Your task to perform on an android device: toggle javascript in the chrome app Image 0: 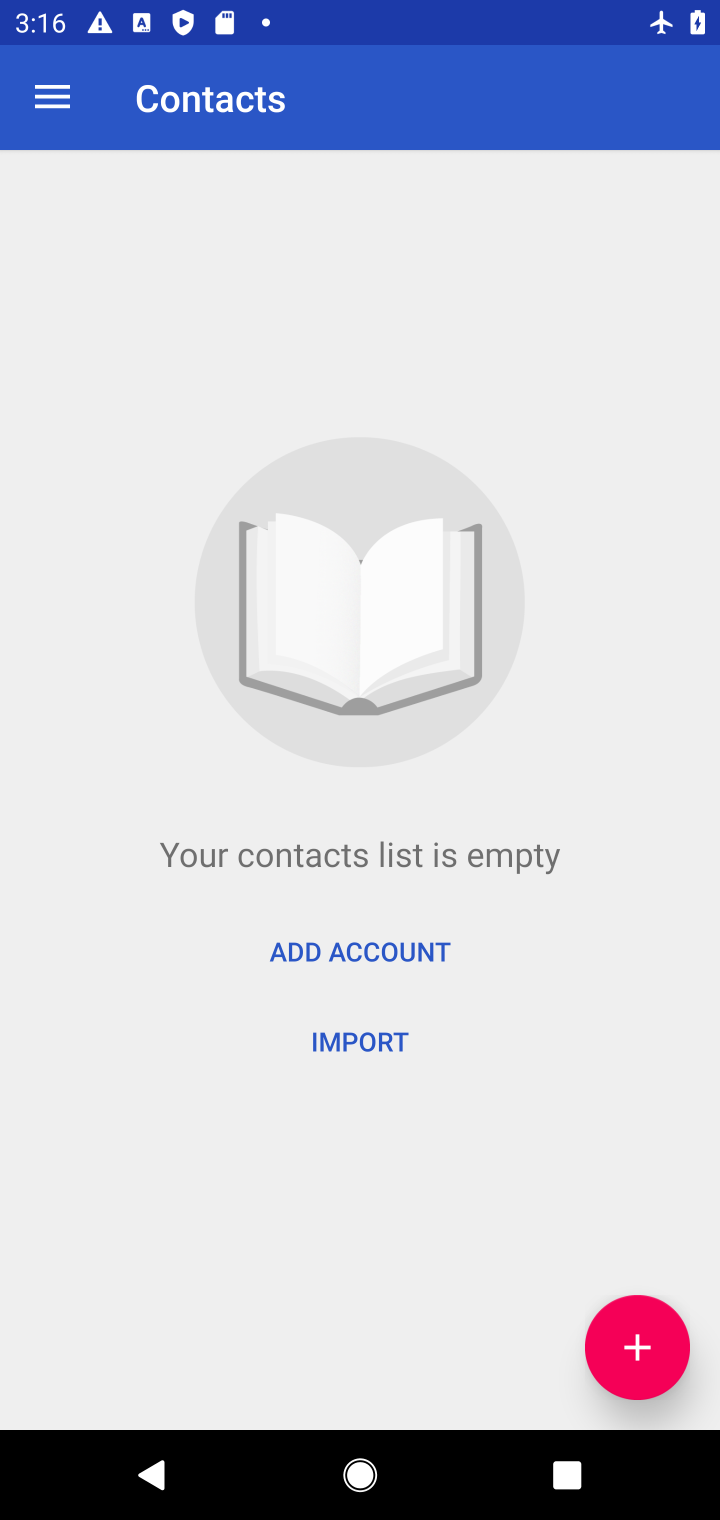
Step 0: press home button
Your task to perform on an android device: toggle javascript in the chrome app Image 1: 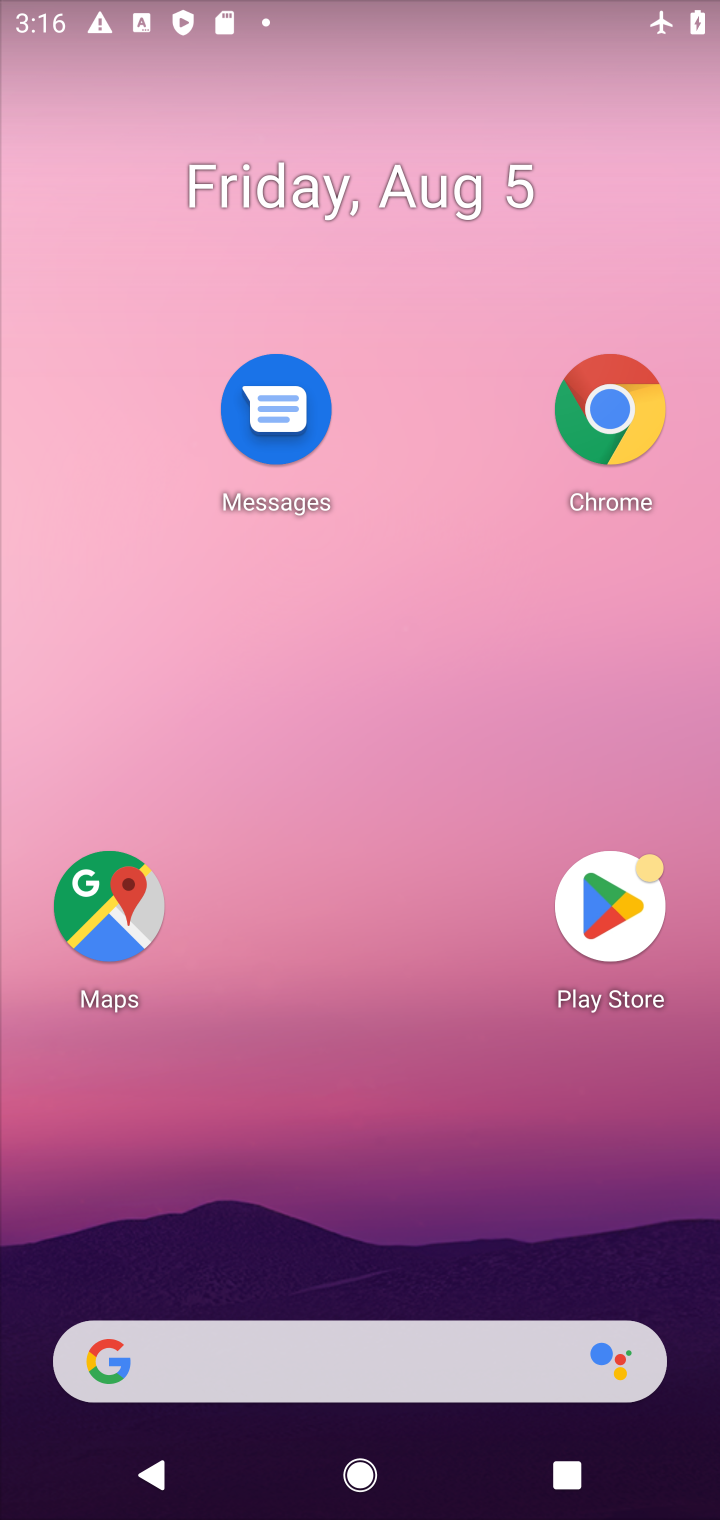
Step 1: click (590, 434)
Your task to perform on an android device: toggle javascript in the chrome app Image 2: 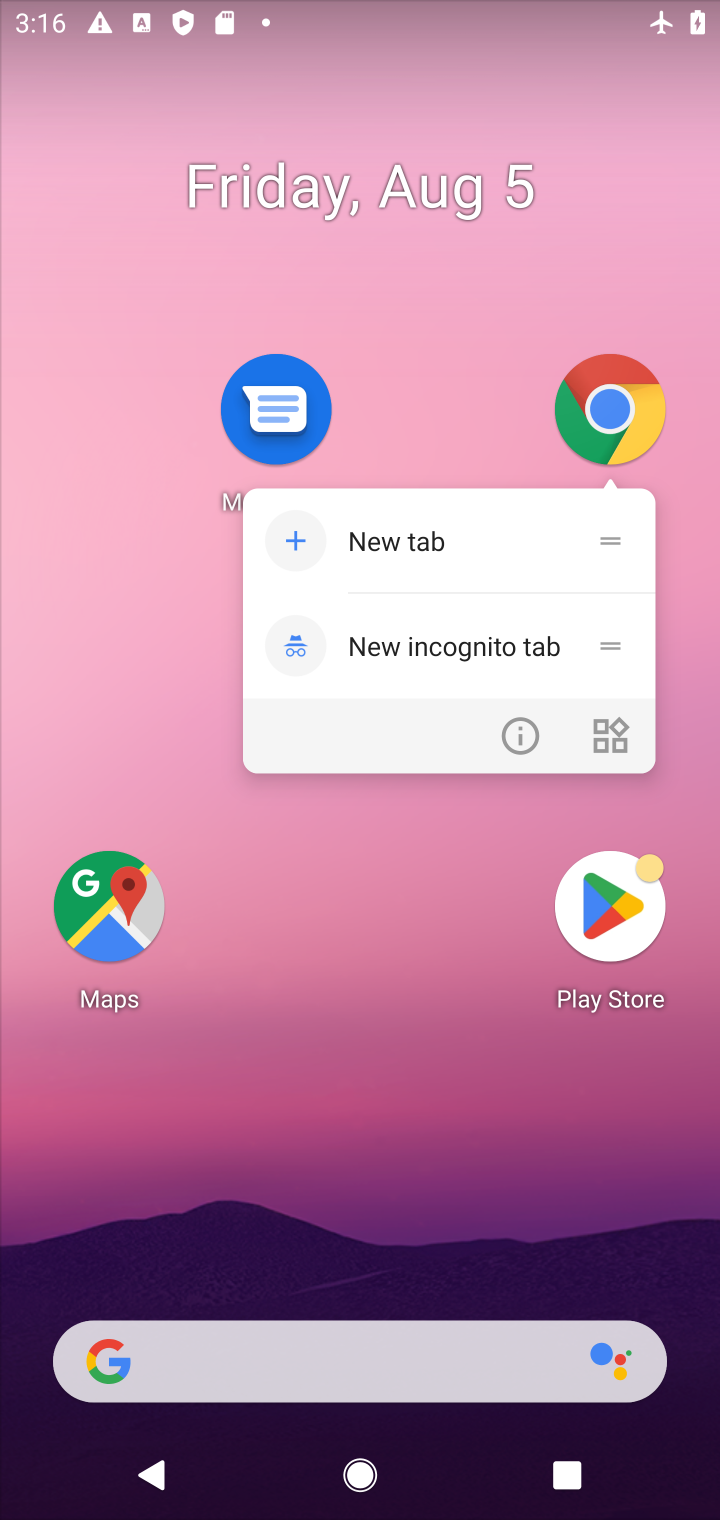
Step 2: click (590, 434)
Your task to perform on an android device: toggle javascript in the chrome app Image 3: 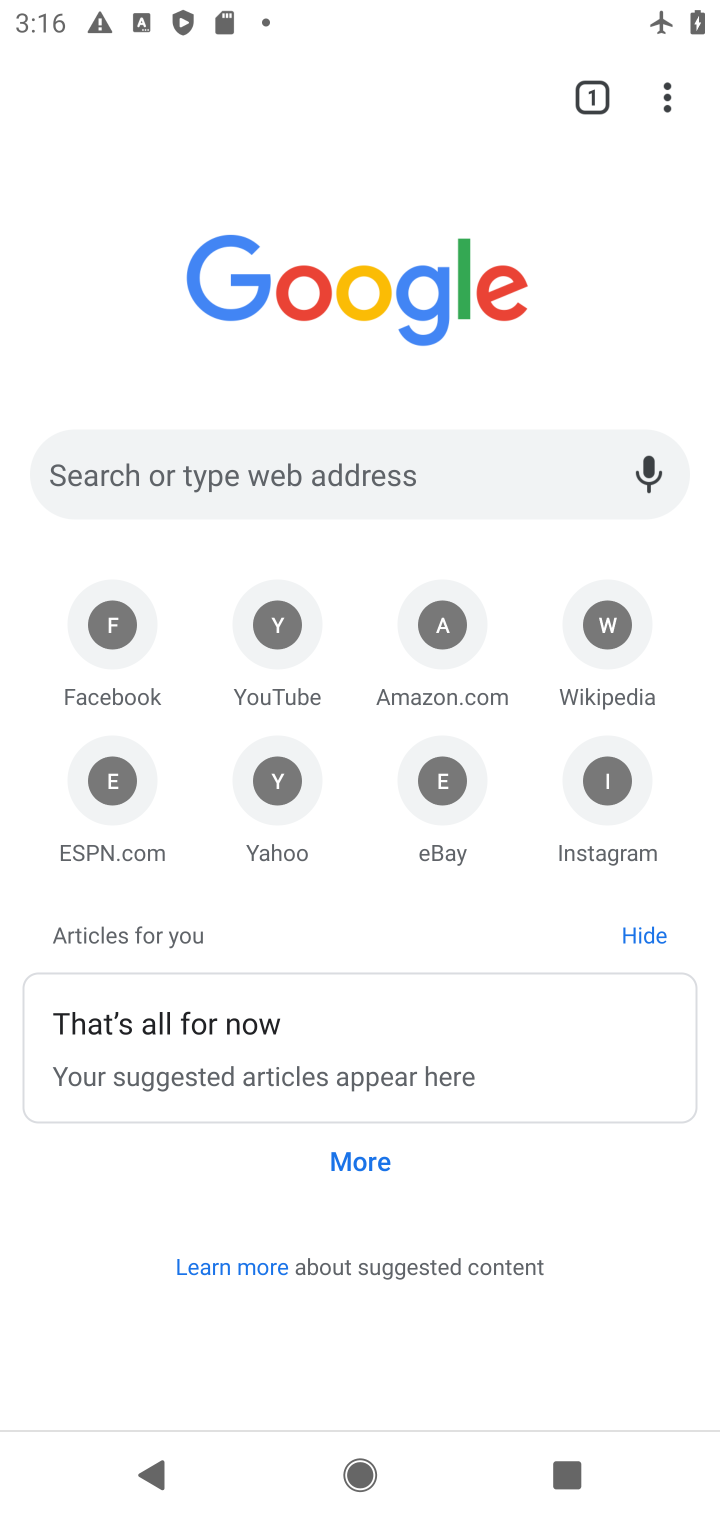
Step 3: drag from (656, 106) to (332, 821)
Your task to perform on an android device: toggle javascript in the chrome app Image 4: 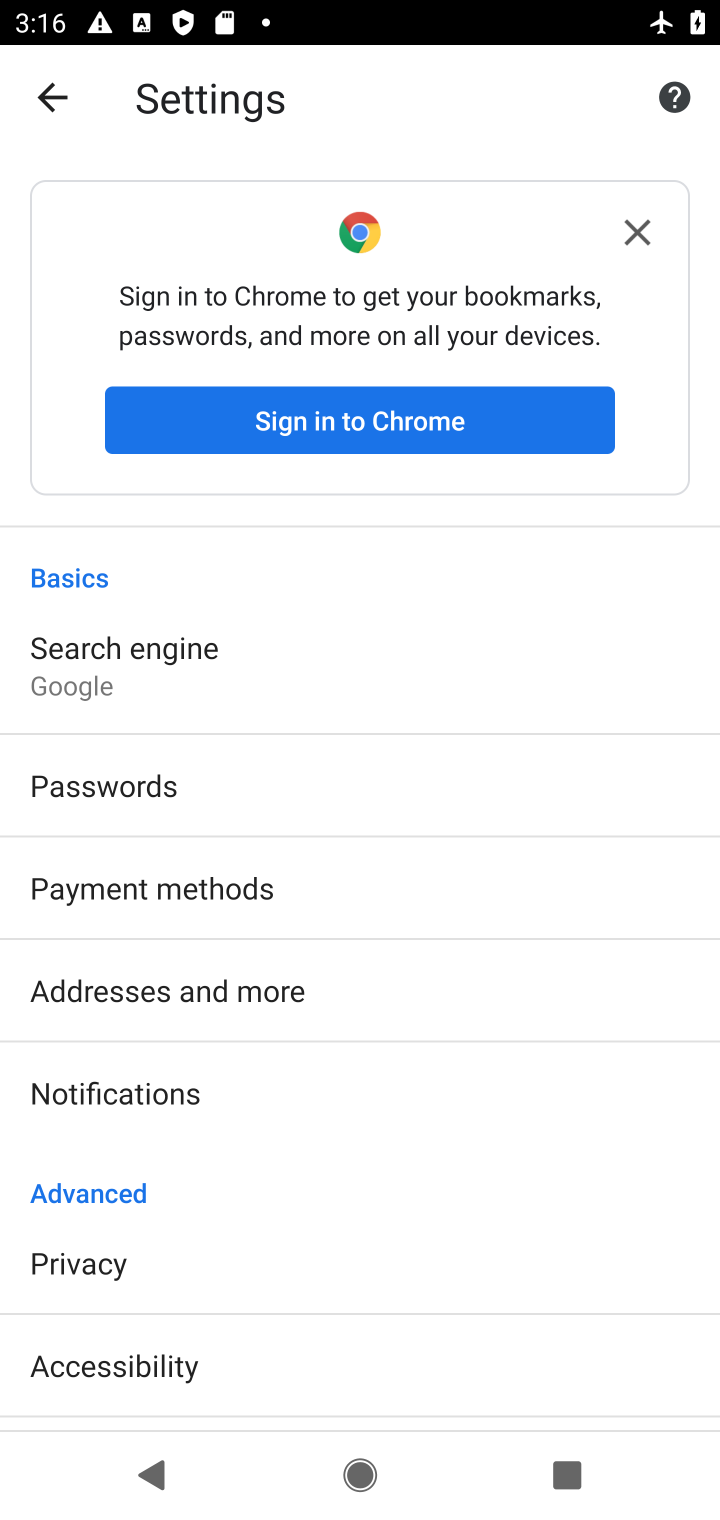
Step 4: drag from (253, 1253) to (343, 650)
Your task to perform on an android device: toggle javascript in the chrome app Image 5: 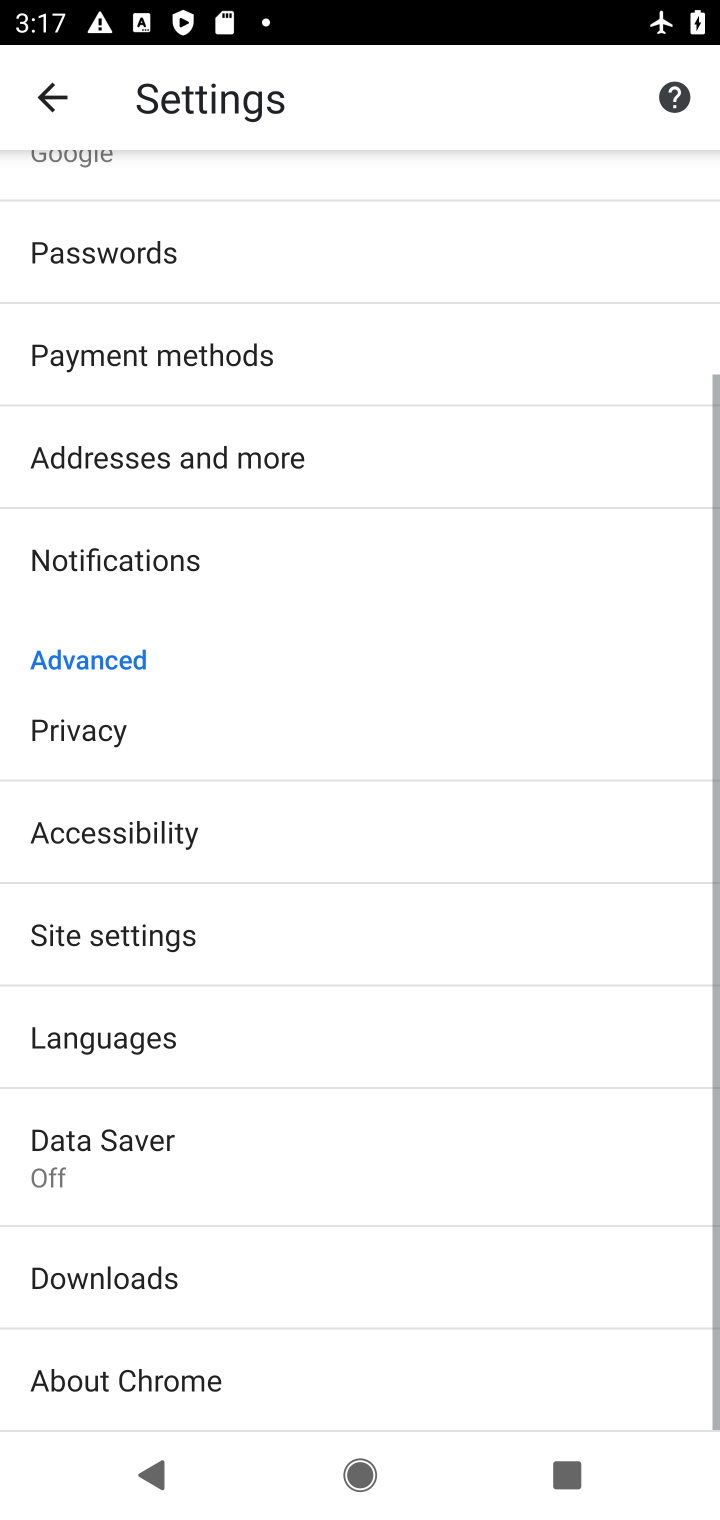
Step 5: click (250, 908)
Your task to perform on an android device: toggle javascript in the chrome app Image 6: 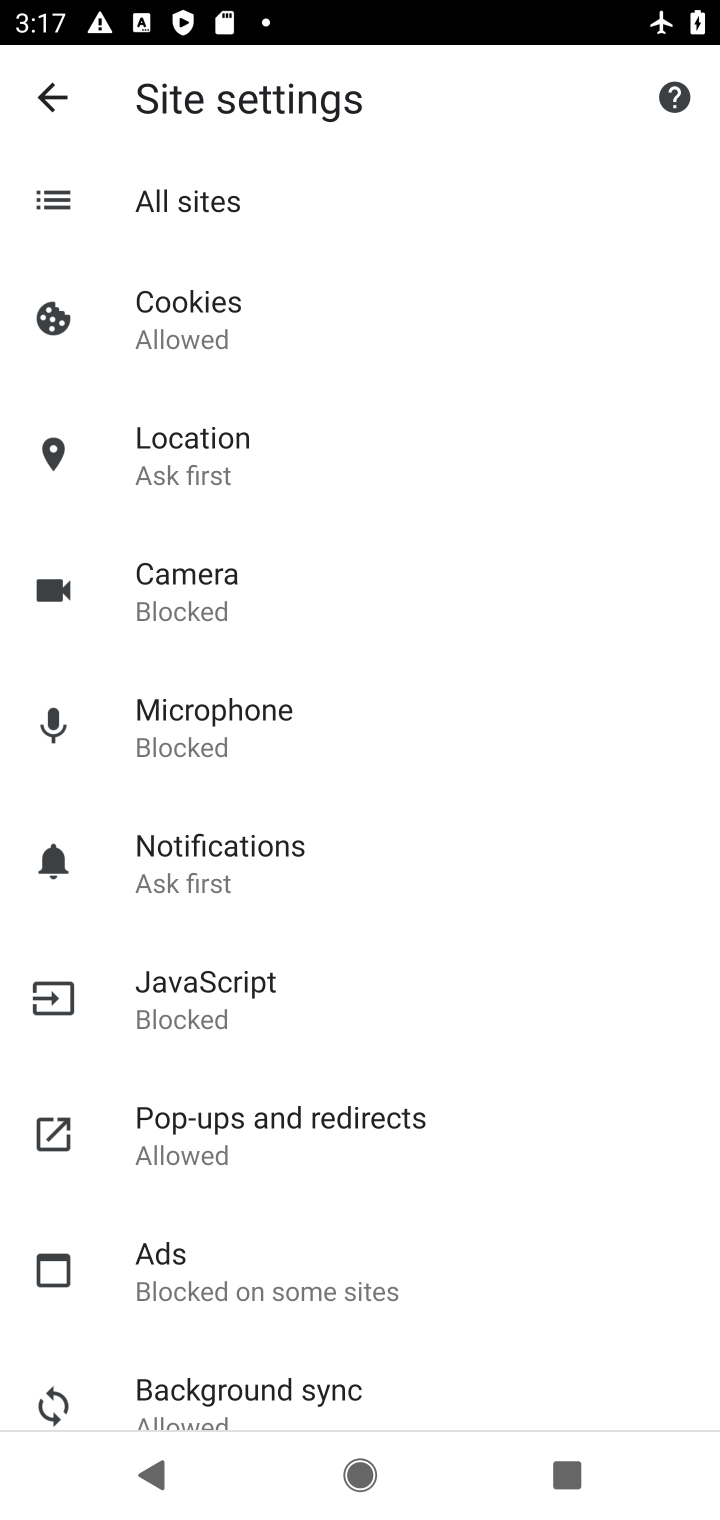
Step 6: click (273, 990)
Your task to perform on an android device: toggle javascript in the chrome app Image 7: 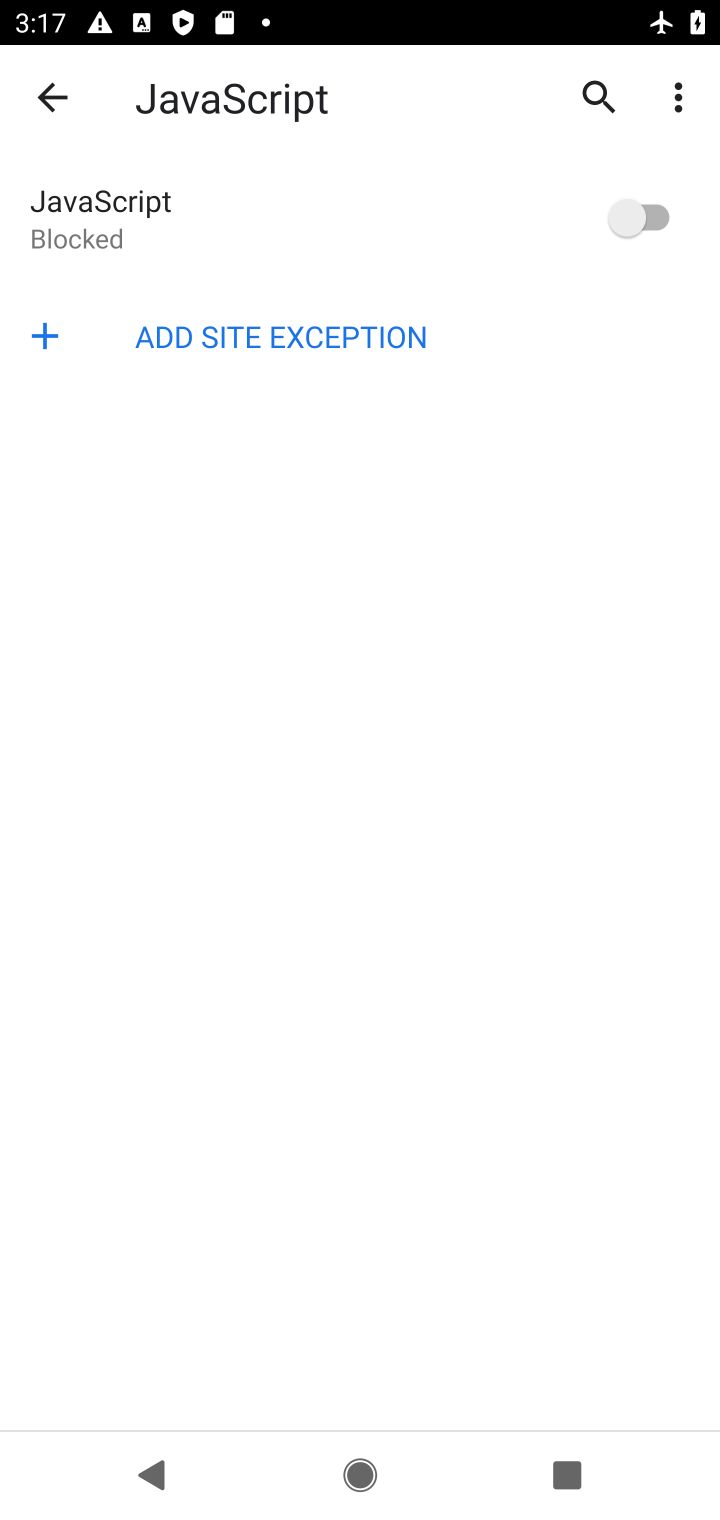
Step 7: click (639, 236)
Your task to perform on an android device: toggle javascript in the chrome app Image 8: 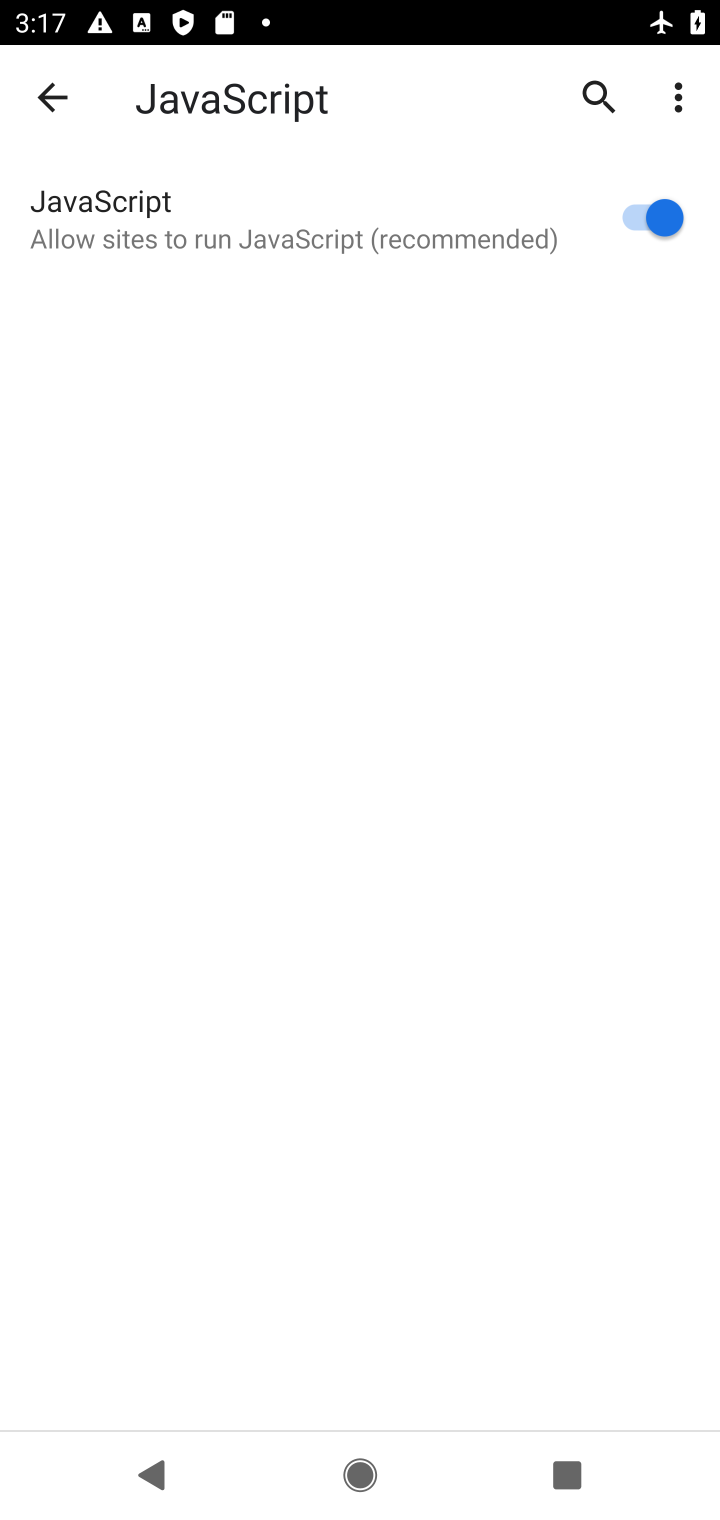
Step 8: task complete